Your task to perform on an android device: turn off priority inbox in the gmail app Image 0: 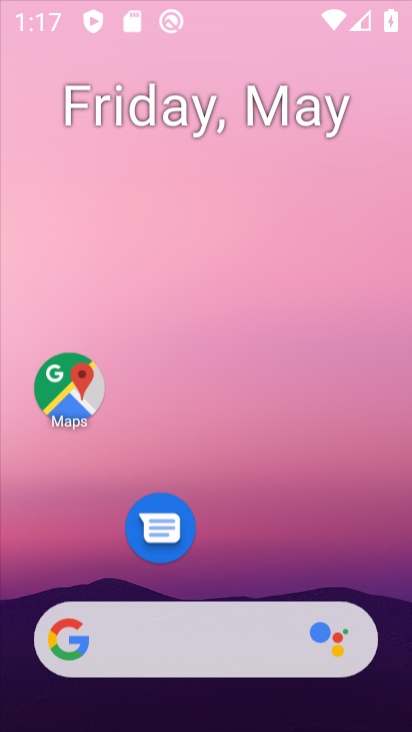
Step 0: click (242, 170)
Your task to perform on an android device: turn off priority inbox in the gmail app Image 1: 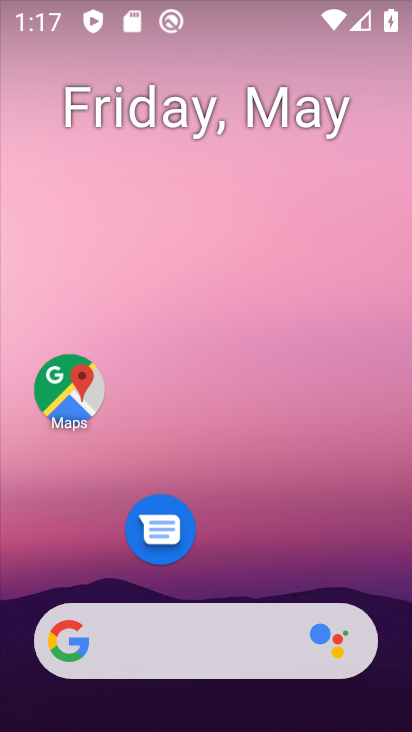
Step 1: drag from (235, 575) to (265, 421)
Your task to perform on an android device: turn off priority inbox in the gmail app Image 2: 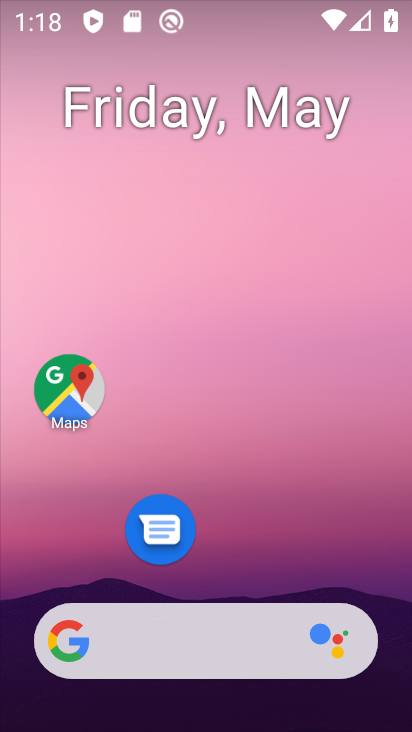
Step 2: drag from (227, 590) to (273, 147)
Your task to perform on an android device: turn off priority inbox in the gmail app Image 3: 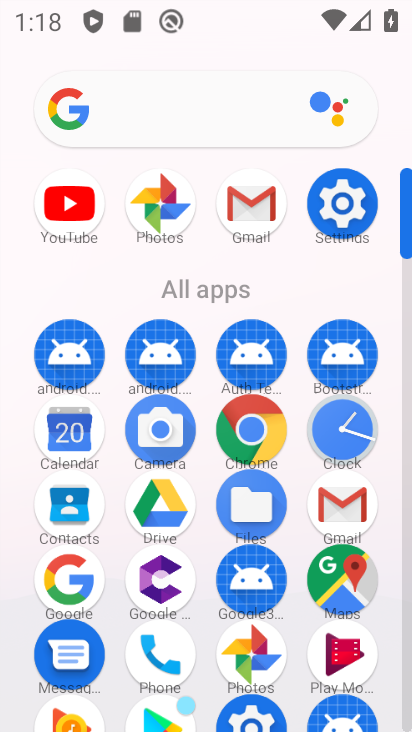
Step 3: click (349, 487)
Your task to perform on an android device: turn off priority inbox in the gmail app Image 4: 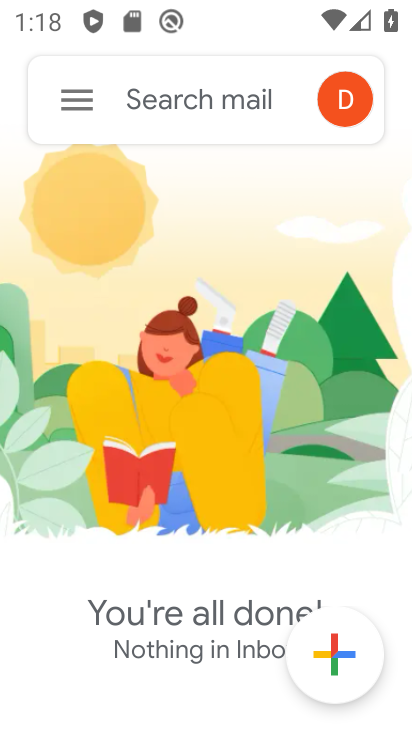
Step 4: click (91, 96)
Your task to perform on an android device: turn off priority inbox in the gmail app Image 5: 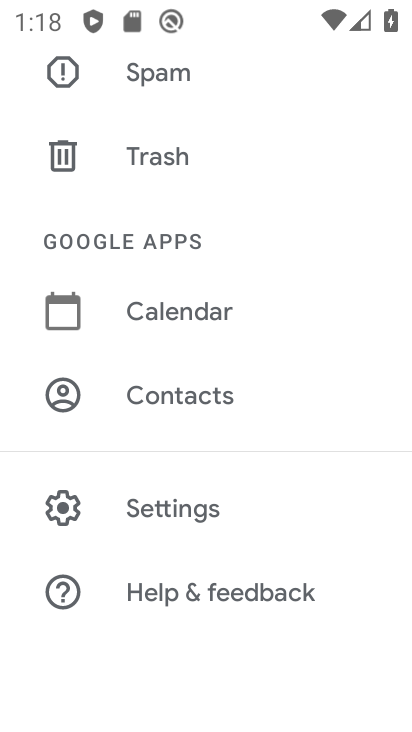
Step 5: click (184, 508)
Your task to perform on an android device: turn off priority inbox in the gmail app Image 6: 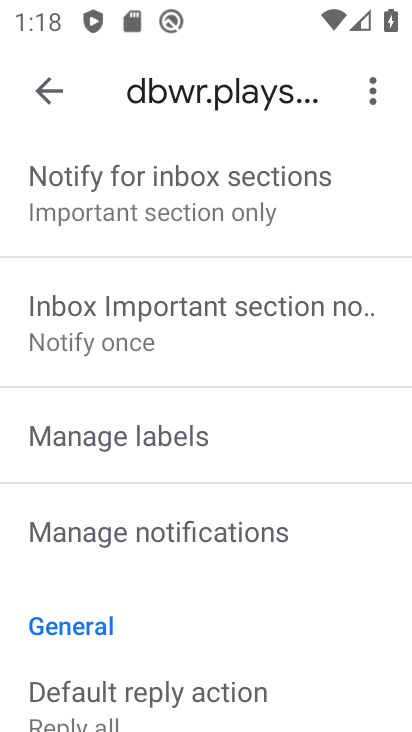
Step 6: drag from (216, 231) to (284, 731)
Your task to perform on an android device: turn off priority inbox in the gmail app Image 7: 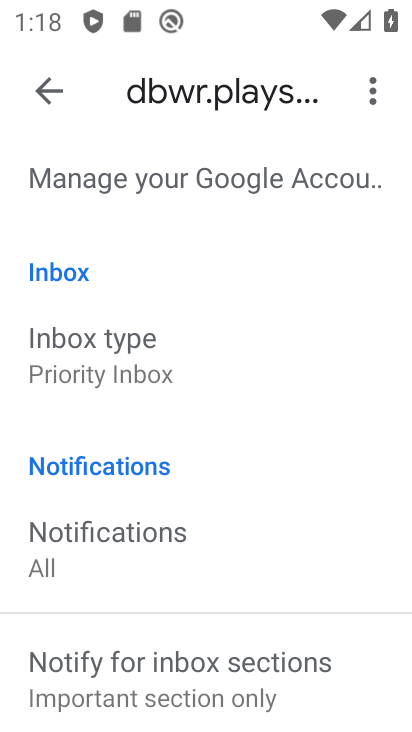
Step 7: drag from (216, 539) to (262, 103)
Your task to perform on an android device: turn off priority inbox in the gmail app Image 8: 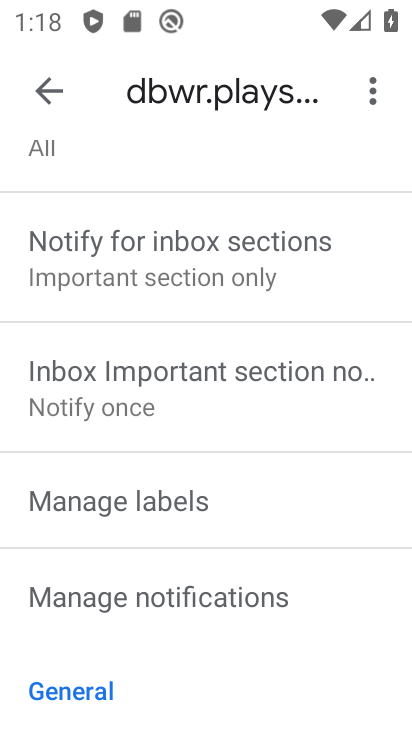
Step 8: drag from (210, 223) to (191, 658)
Your task to perform on an android device: turn off priority inbox in the gmail app Image 9: 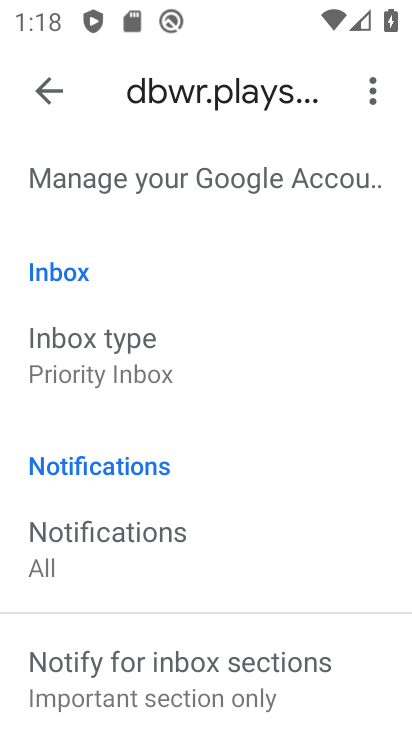
Step 9: click (114, 331)
Your task to perform on an android device: turn off priority inbox in the gmail app Image 10: 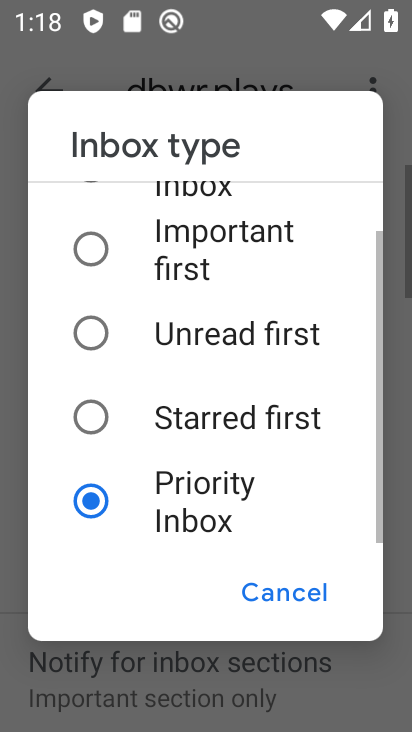
Step 10: drag from (278, 298) to (335, 731)
Your task to perform on an android device: turn off priority inbox in the gmail app Image 11: 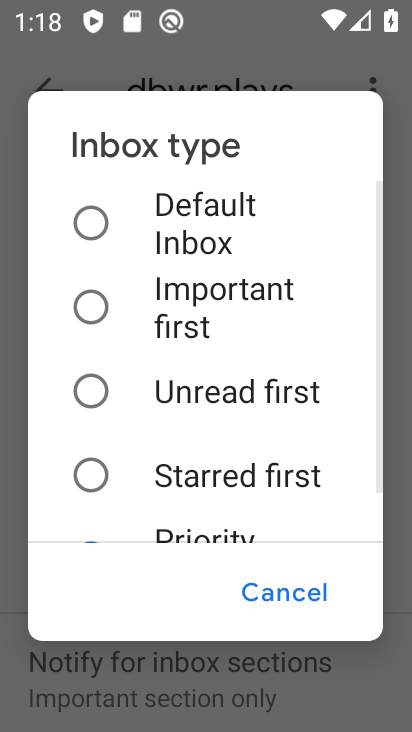
Step 11: drag from (181, 369) to (230, 181)
Your task to perform on an android device: turn off priority inbox in the gmail app Image 12: 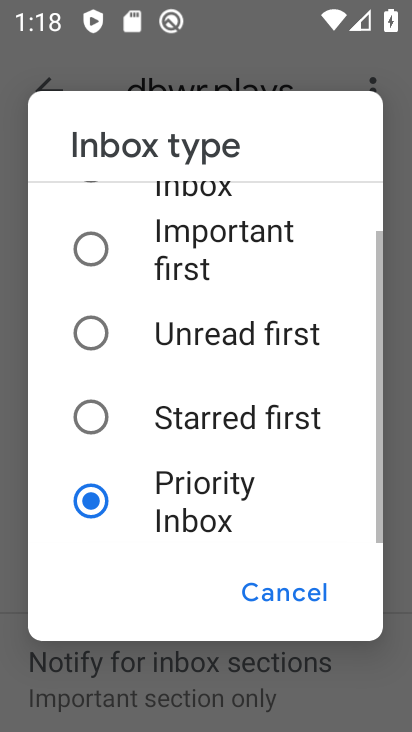
Step 12: drag from (239, 233) to (260, 647)
Your task to perform on an android device: turn off priority inbox in the gmail app Image 13: 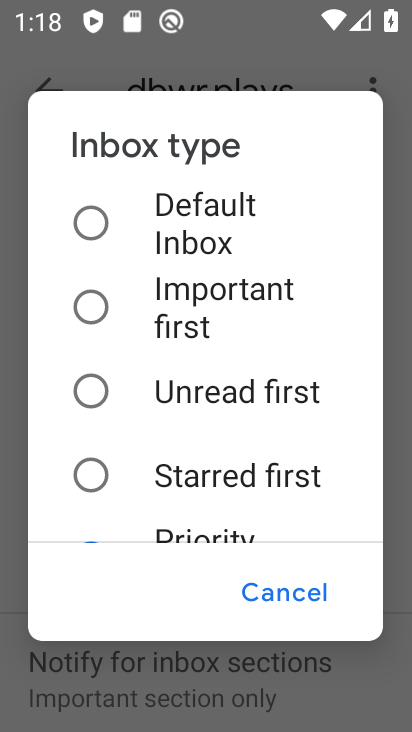
Step 13: click (132, 237)
Your task to perform on an android device: turn off priority inbox in the gmail app Image 14: 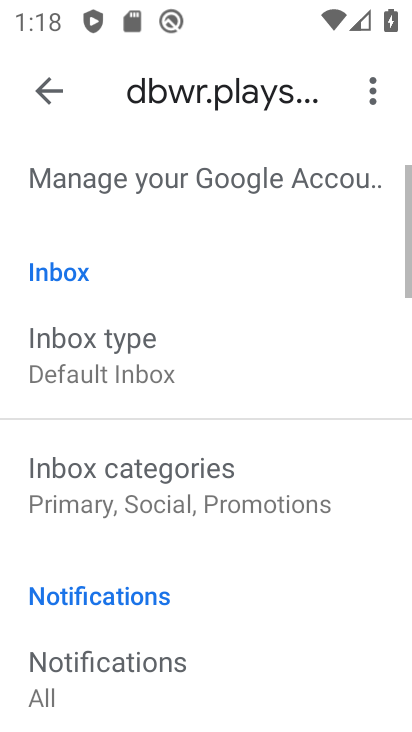
Step 14: task complete